Your task to perform on an android device: Open my contact list Image 0: 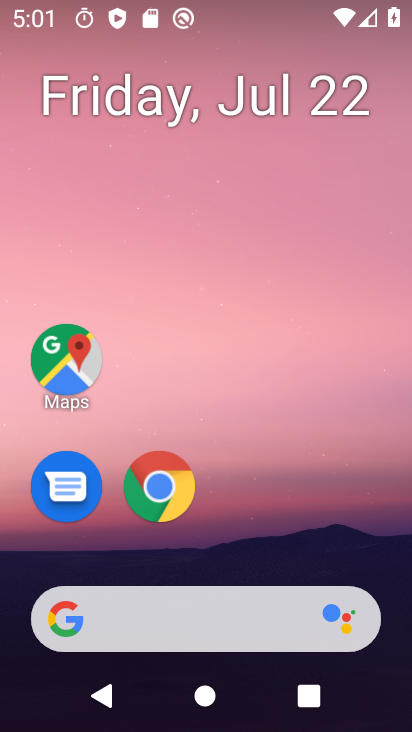
Step 0: drag from (325, 542) to (317, 224)
Your task to perform on an android device: Open my contact list Image 1: 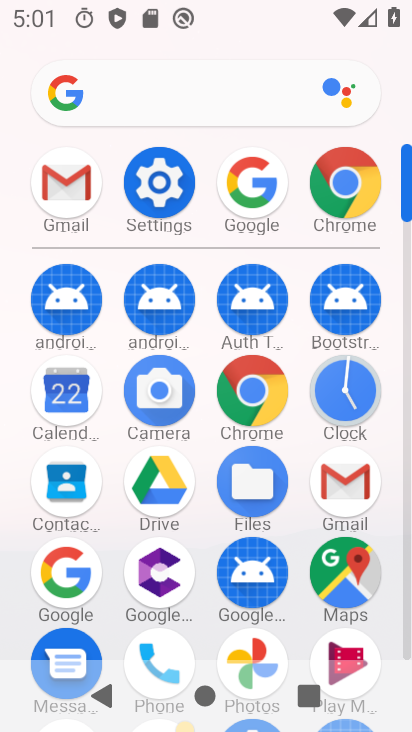
Step 1: click (83, 476)
Your task to perform on an android device: Open my contact list Image 2: 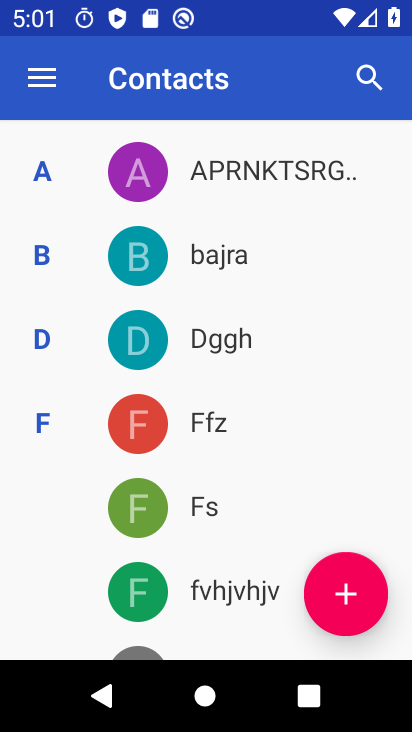
Step 2: task complete